Your task to perform on an android device: snooze an email in the gmail app Image 0: 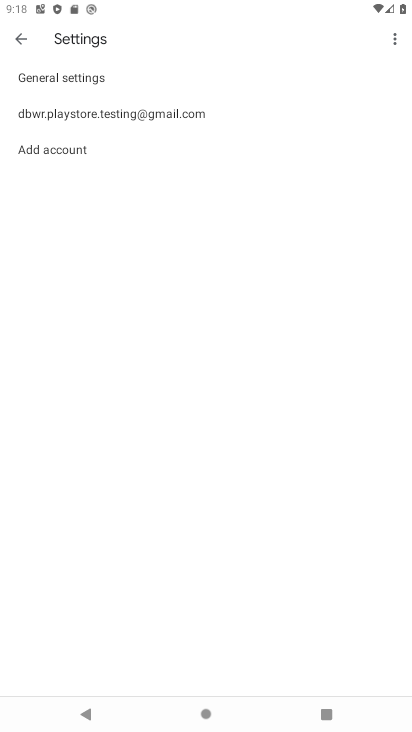
Step 0: click (93, 116)
Your task to perform on an android device: snooze an email in the gmail app Image 1: 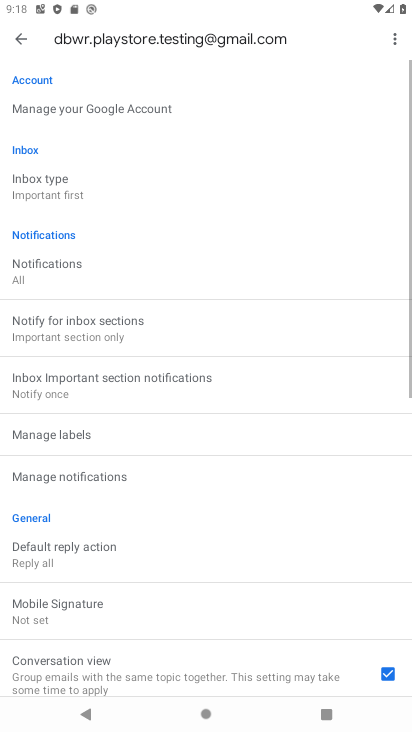
Step 1: click (33, 57)
Your task to perform on an android device: snooze an email in the gmail app Image 2: 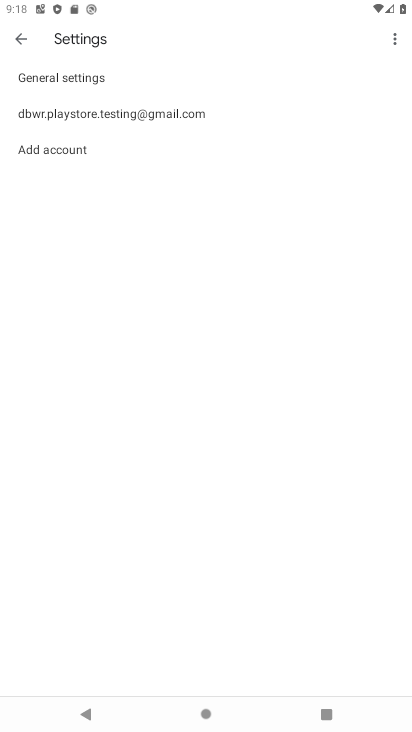
Step 2: click (23, 49)
Your task to perform on an android device: snooze an email in the gmail app Image 3: 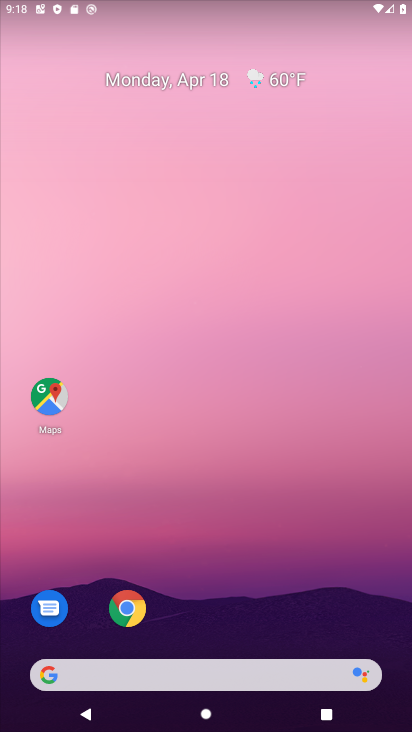
Step 3: drag from (182, 512) to (265, 0)
Your task to perform on an android device: snooze an email in the gmail app Image 4: 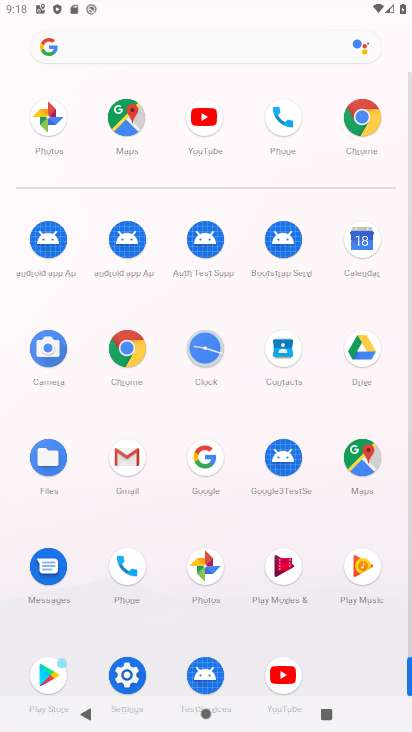
Step 4: click (134, 448)
Your task to perform on an android device: snooze an email in the gmail app Image 5: 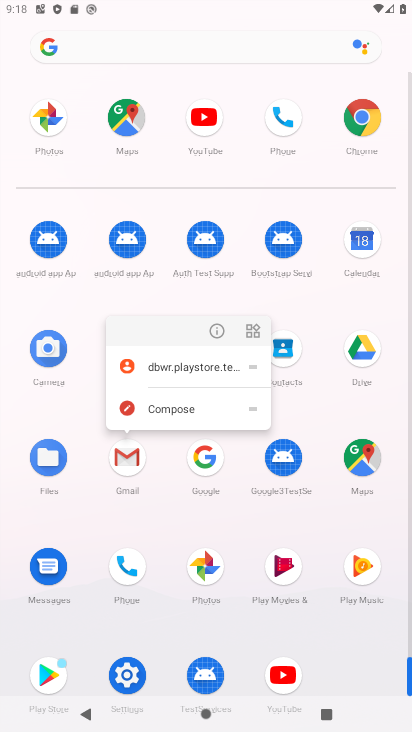
Step 5: click (213, 334)
Your task to perform on an android device: snooze an email in the gmail app Image 6: 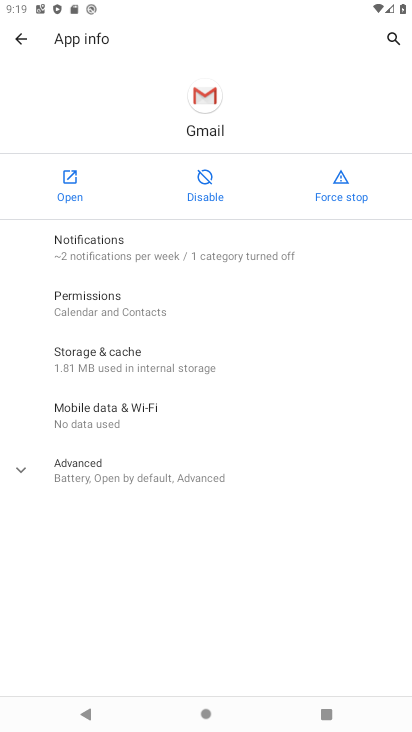
Step 6: click (73, 202)
Your task to perform on an android device: snooze an email in the gmail app Image 7: 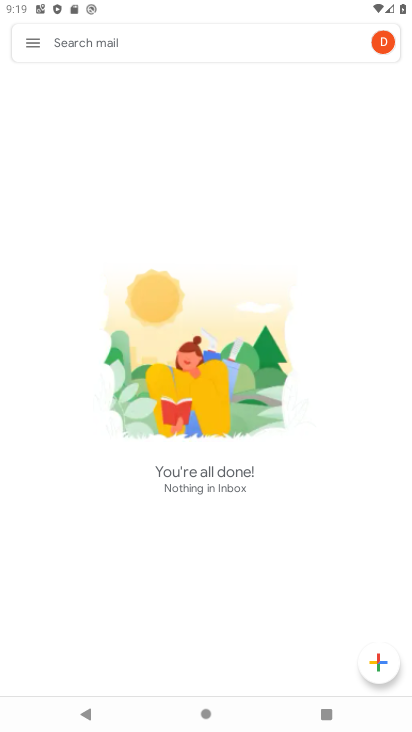
Step 7: task complete